Your task to perform on an android device: What's the weather today? Image 0: 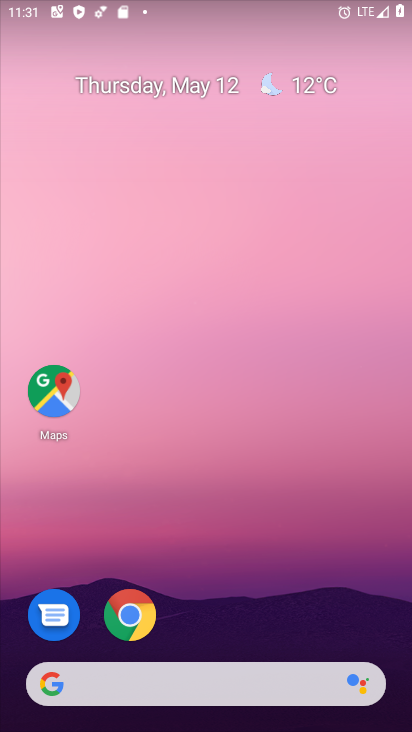
Step 0: click (282, 79)
Your task to perform on an android device: What's the weather today? Image 1: 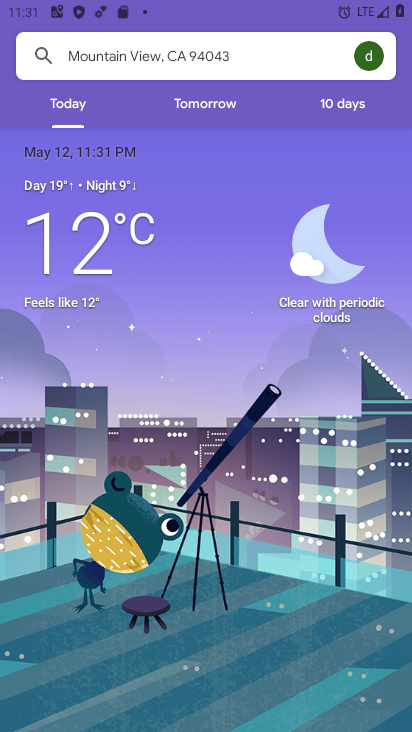
Step 1: task complete